Your task to perform on an android device: visit the assistant section in the google photos Image 0: 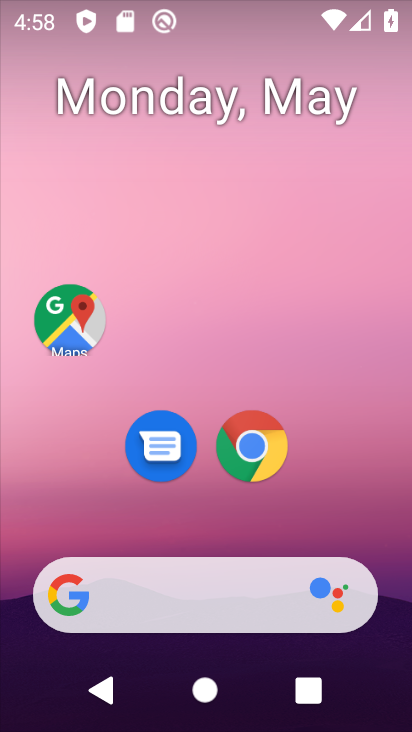
Step 0: drag from (338, 489) to (270, 112)
Your task to perform on an android device: visit the assistant section in the google photos Image 1: 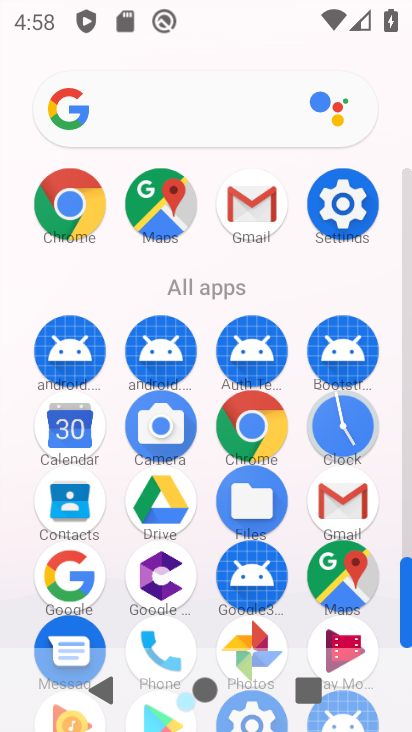
Step 1: click (248, 635)
Your task to perform on an android device: visit the assistant section in the google photos Image 2: 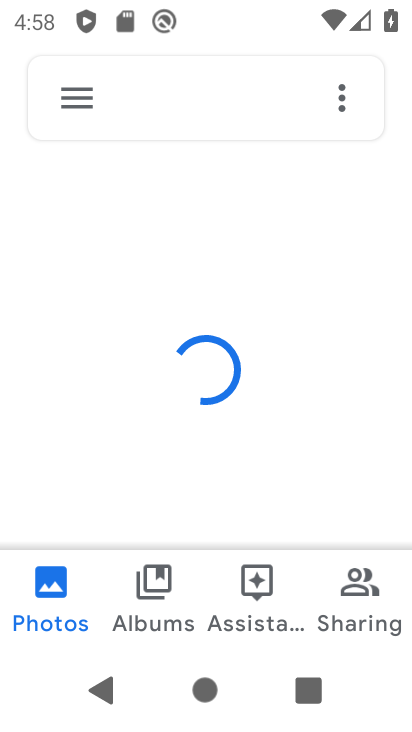
Step 2: click (256, 582)
Your task to perform on an android device: visit the assistant section in the google photos Image 3: 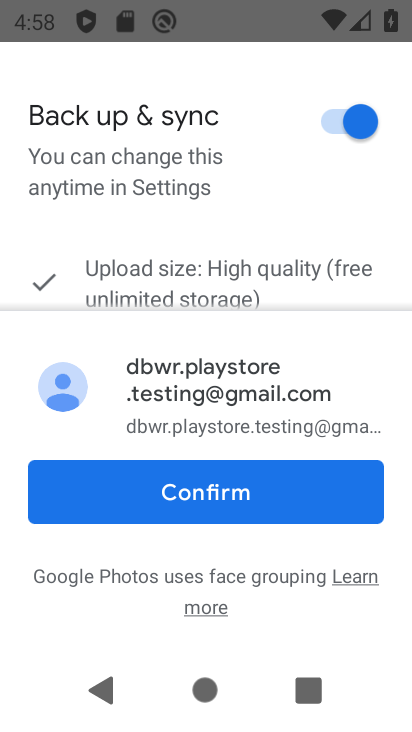
Step 3: click (287, 498)
Your task to perform on an android device: visit the assistant section in the google photos Image 4: 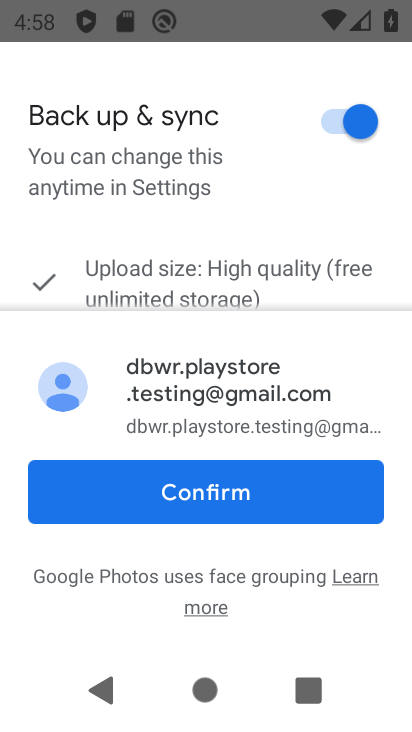
Step 4: click (287, 498)
Your task to perform on an android device: visit the assistant section in the google photos Image 5: 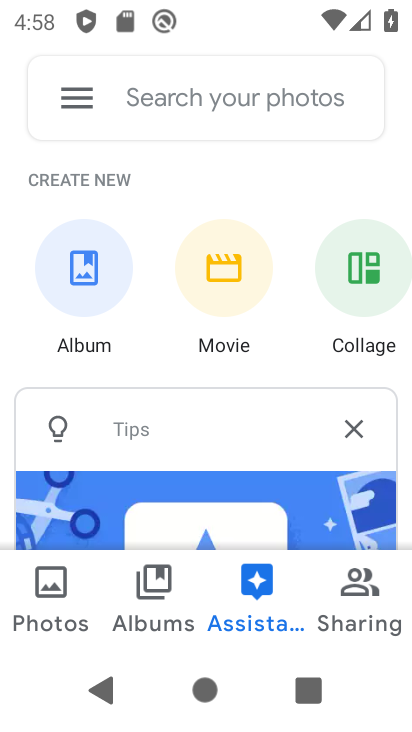
Step 5: task complete